Your task to perform on an android device: Search for a new eyeliner Image 0: 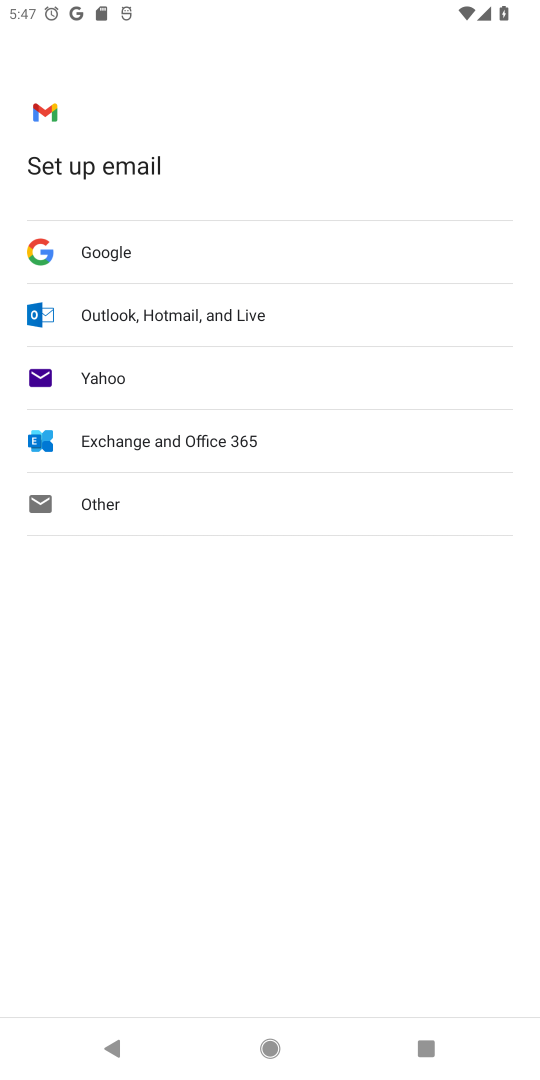
Step 0: press home button
Your task to perform on an android device: Search for a new eyeliner Image 1: 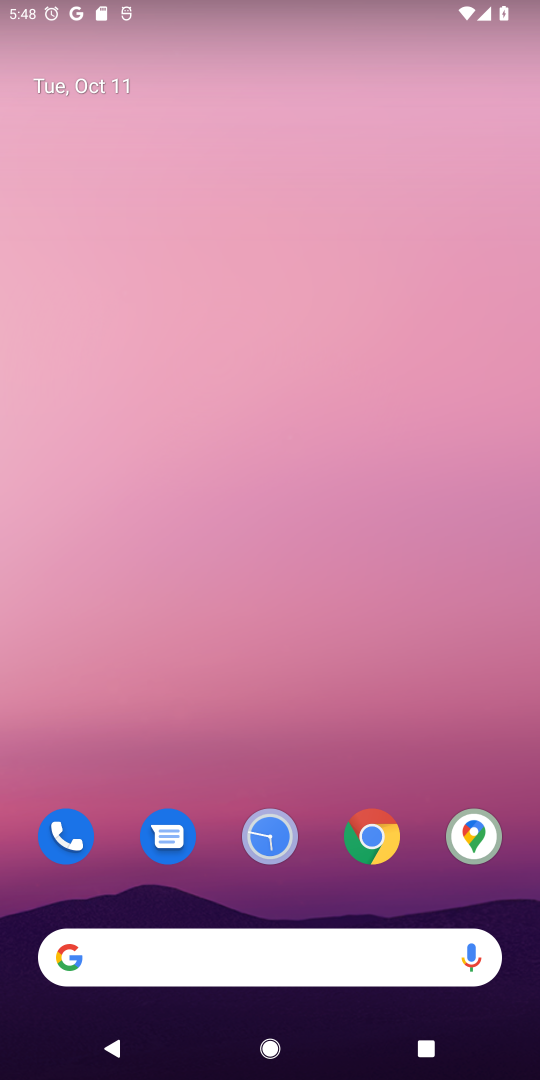
Step 1: click (253, 956)
Your task to perform on an android device: Search for a new eyeliner Image 2: 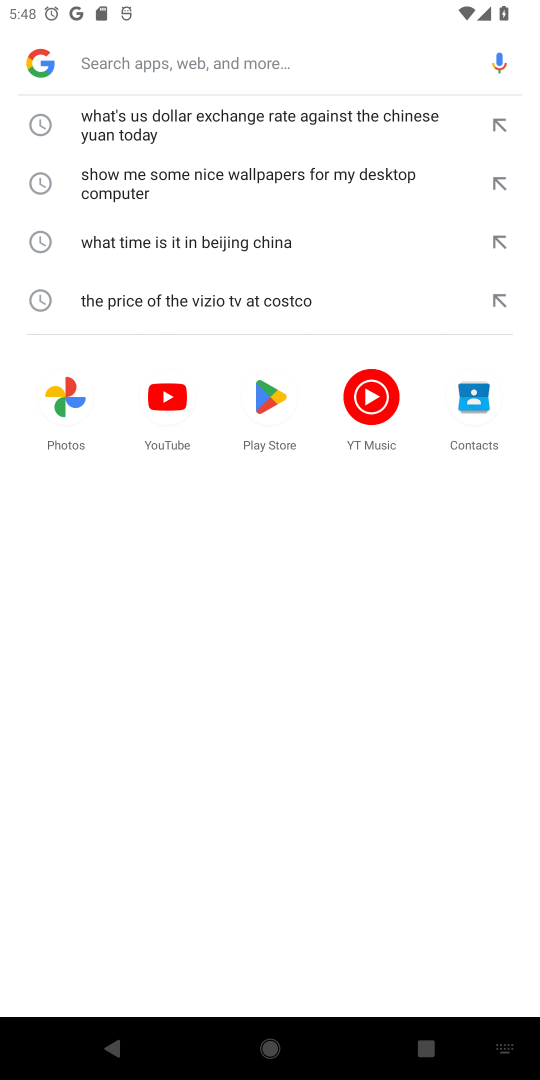
Step 2: type "new eyeliner"
Your task to perform on an android device: Search for a new eyeliner Image 3: 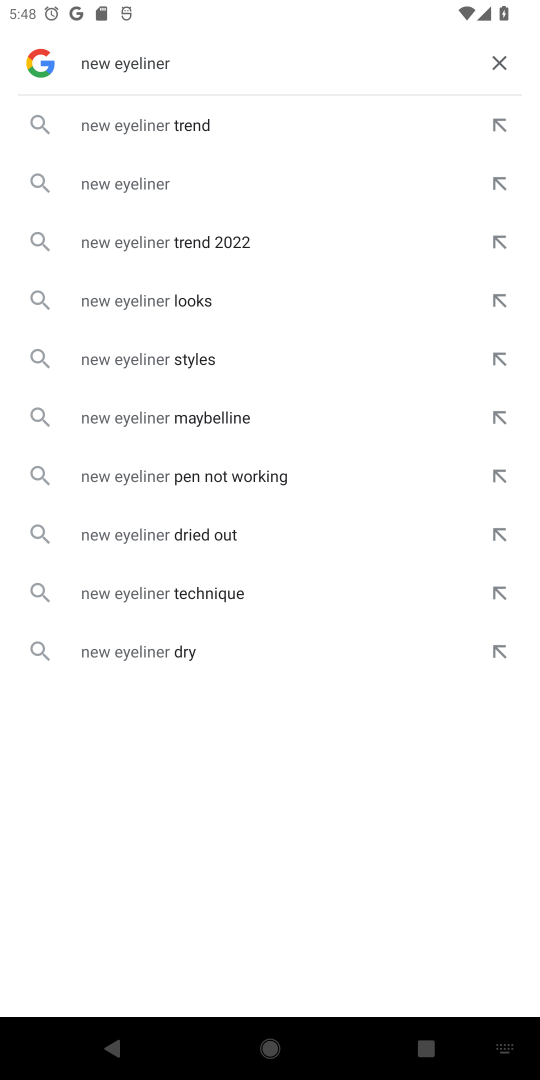
Step 3: click (254, 121)
Your task to perform on an android device: Search for a new eyeliner Image 4: 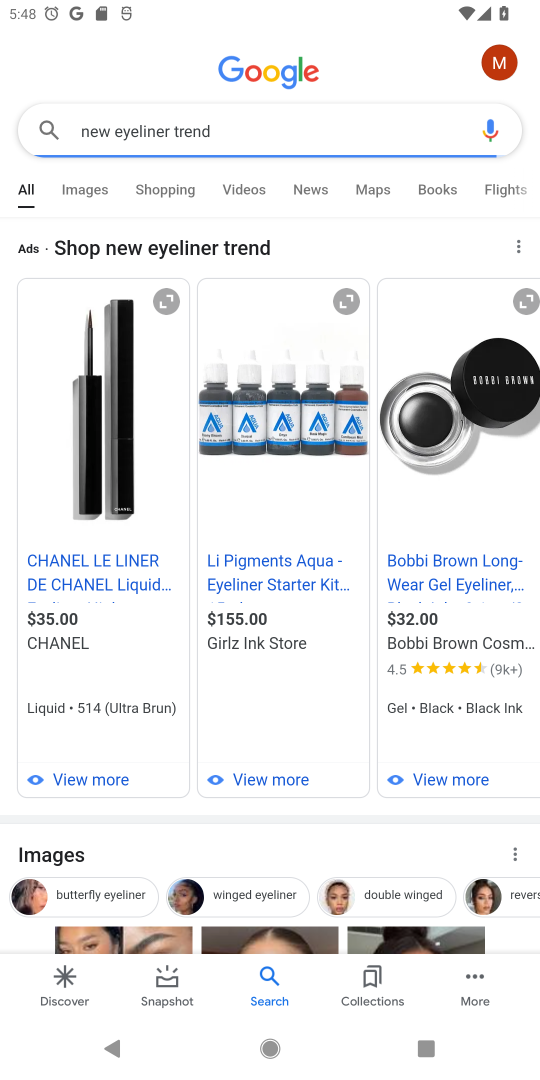
Step 4: task complete